Your task to perform on an android device: Empty the shopping cart on walmart. Search for "dell xps" on walmart, select the first entry, add it to the cart, then select checkout. Image 0: 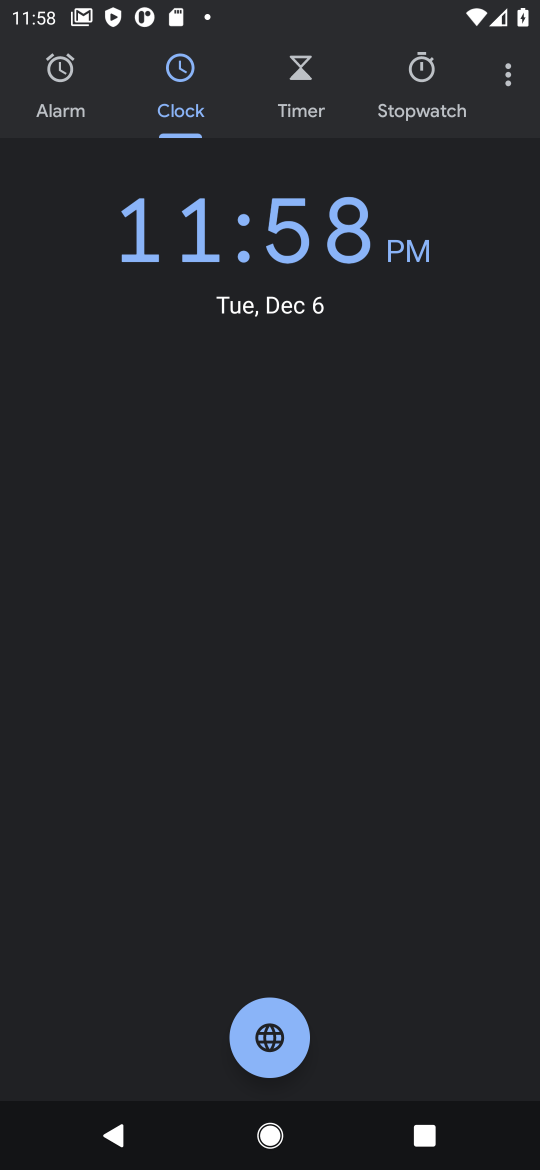
Step 0: press home button
Your task to perform on an android device: Empty the shopping cart on walmart. Search for "dell xps" on walmart, select the first entry, add it to the cart, then select checkout. Image 1: 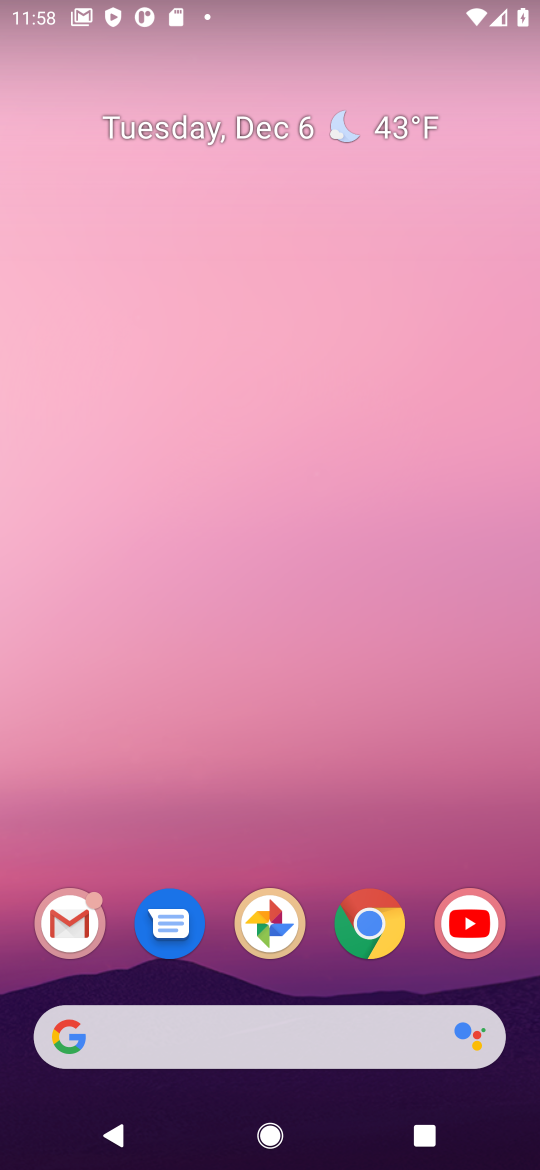
Step 1: click (362, 917)
Your task to perform on an android device: Empty the shopping cart on walmart. Search for "dell xps" on walmart, select the first entry, add it to the cart, then select checkout. Image 2: 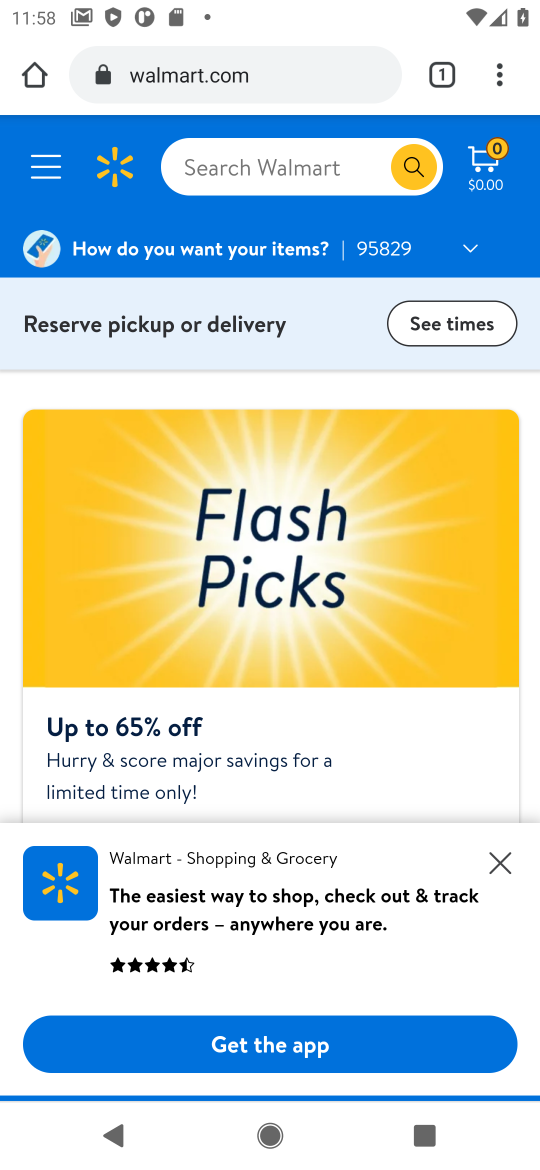
Step 2: click (406, 160)
Your task to perform on an android device: Empty the shopping cart on walmart. Search for "dell xps" on walmart, select the first entry, add it to the cart, then select checkout. Image 3: 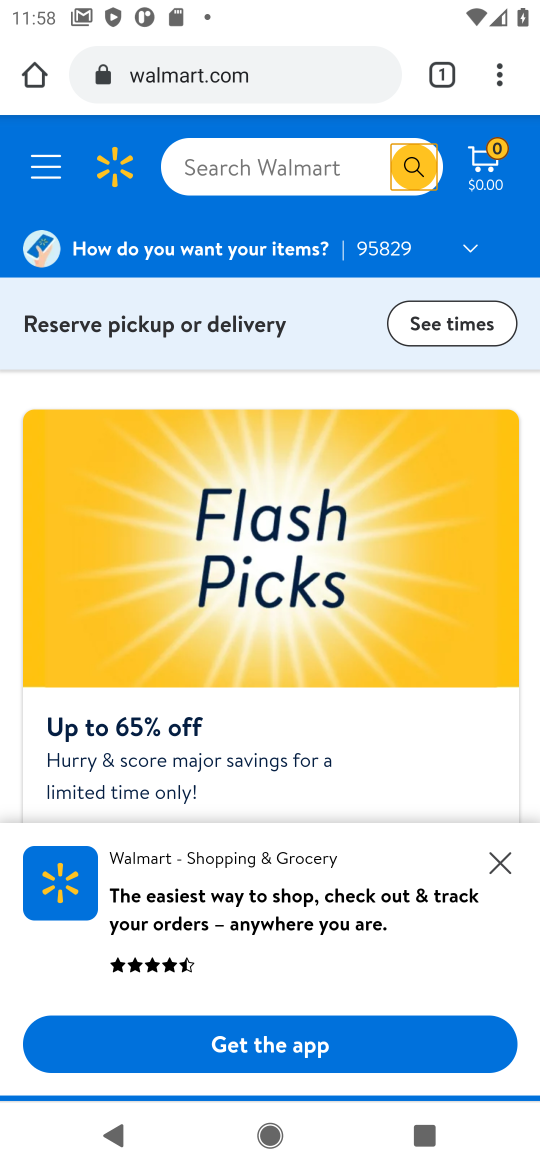
Step 3: click (301, 151)
Your task to perform on an android device: Empty the shopping cart on walmart. Search for "dell xps" on walmart, select the first entry, add it to the cart, then select checkout. Image 4: 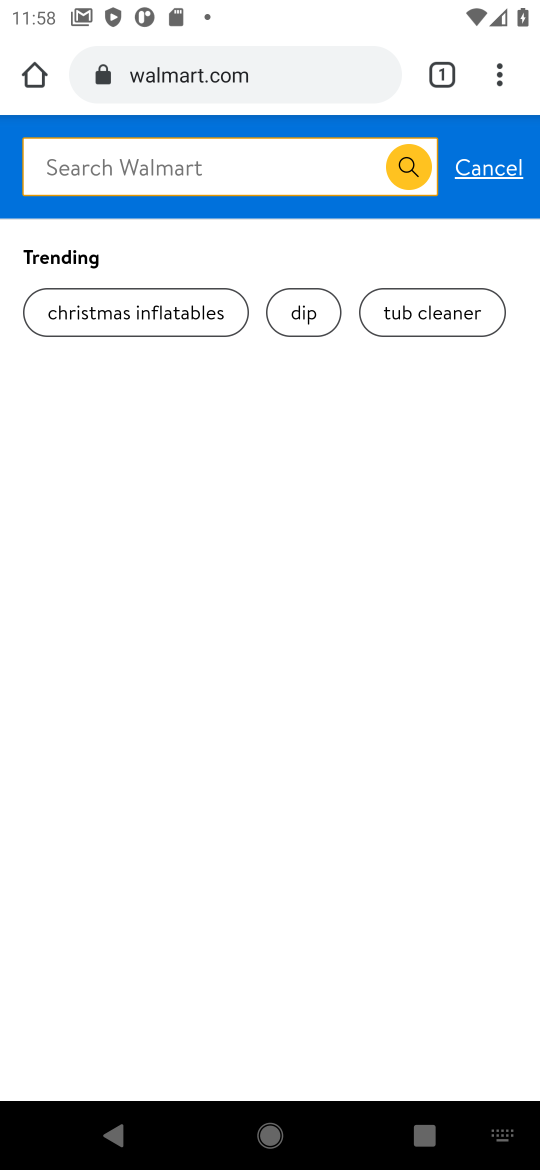
Step 4: type "dell xps"
Your task to perform on an android device: Empty the shopping cart on walmart. Search for "dell xps" on walmart, select the first entry, add it to the cart, then select checkout. Image 5: 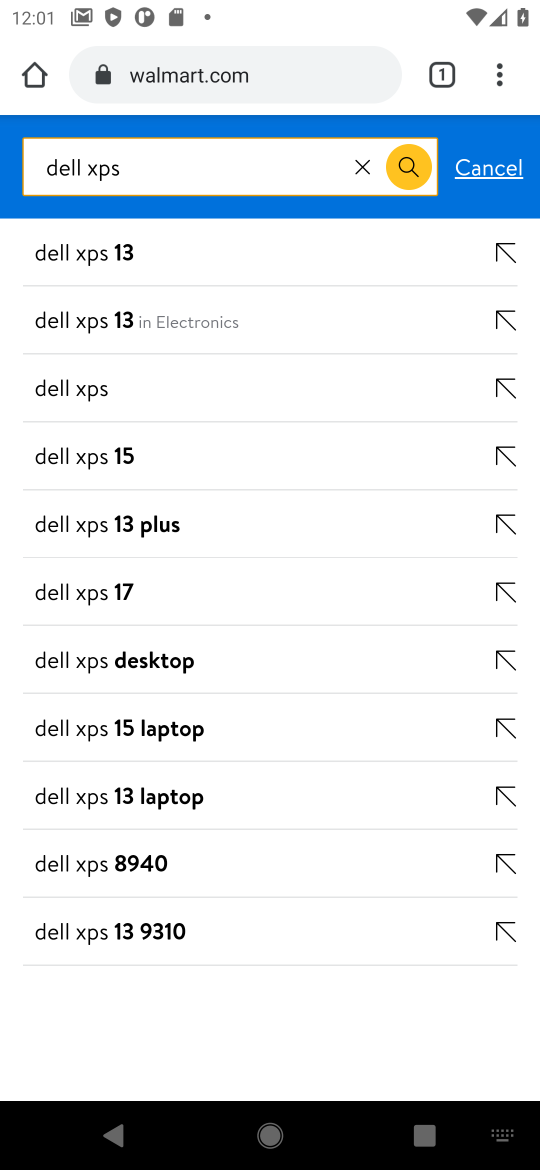
Step 5: click (117, 262)
Your task to perform on an android device: Empty the shopping cart on walmart. Search for "dell xps" on walmart, select the first entry, add it to the cart, then select checkout. Image 6: 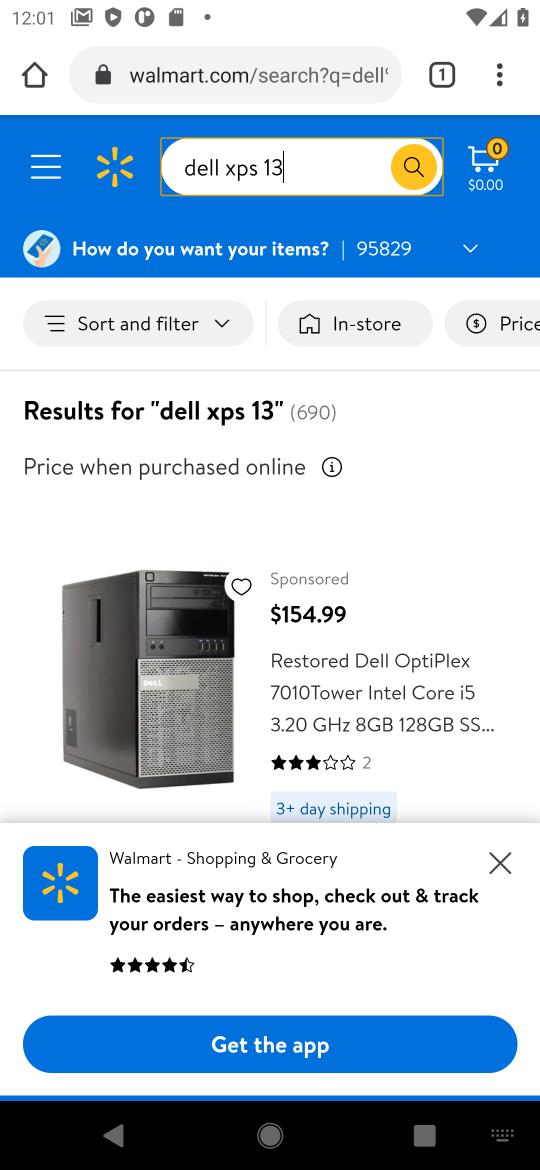
Step 6: click (150, 635)
Your task to perform on an android device: Empty the shopping cart on walmart. Search for "dell xps" on walmart, select the first entry, add it to the cart, then select checkout. Image 7: 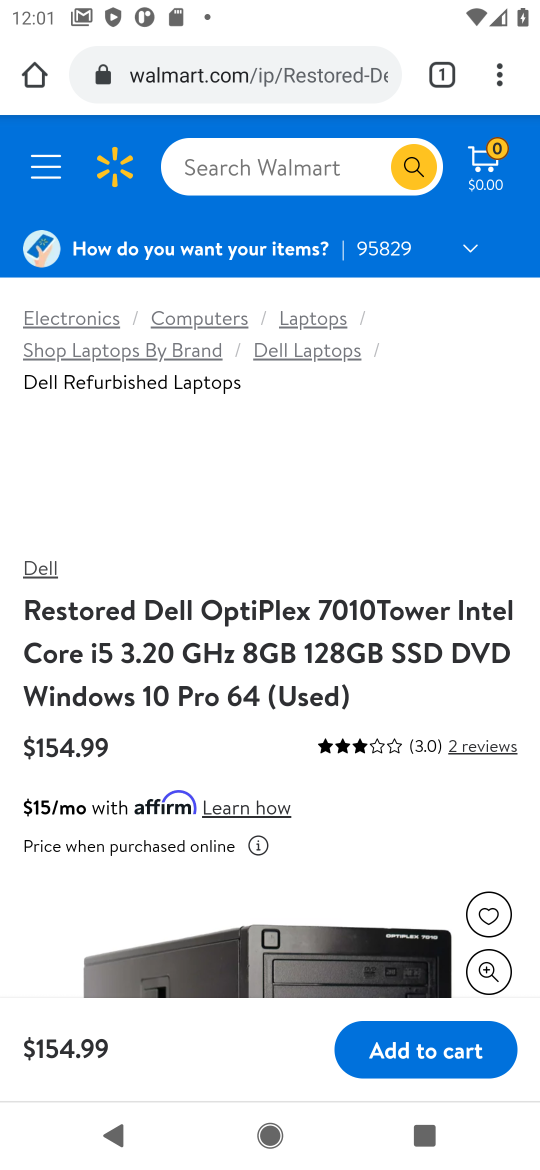
Step 7: click (422, 1043)
Your task to perform on an android device: Empty the shopping cart on walmart. Search for "dell xps" on walmart, select the first entry, add it to the cart, then select checkout. Image 8: 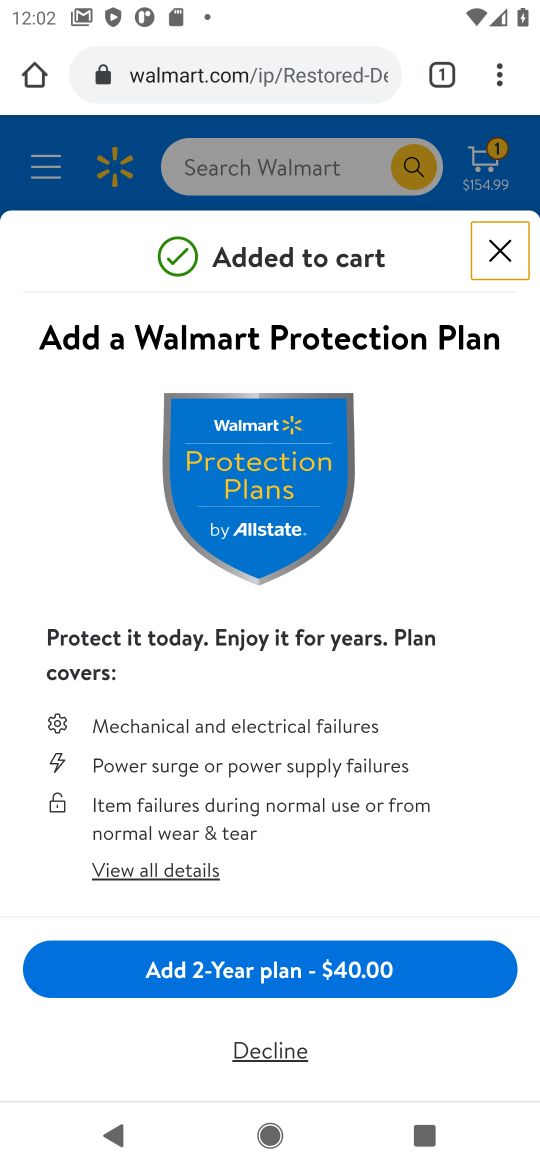
Step 8: click (504, 257)
Your task to perform on an android device: Empty the shopping cart on walmart. Search for "dell xps" on walmart, select the first entry, add it to the cart, then select checkout. Image 9: 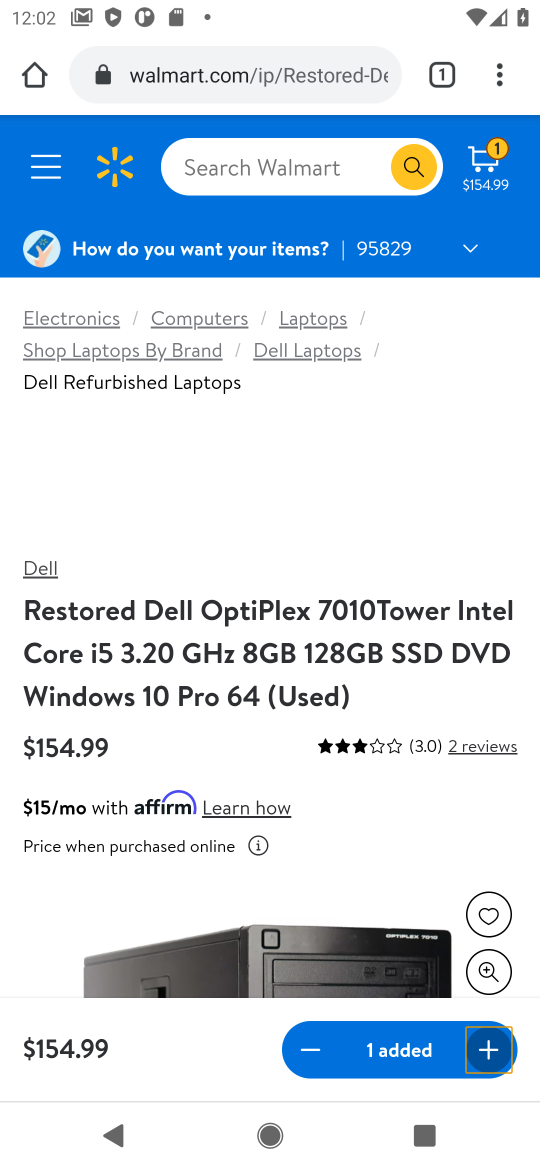
Step 9: click (485, 160)
Your task to perform on an android device: Empty the shopping cart on walmart. Search for "dell xps" on walmart, select the first entry, add it to the cart, then select checkout. Image 10: 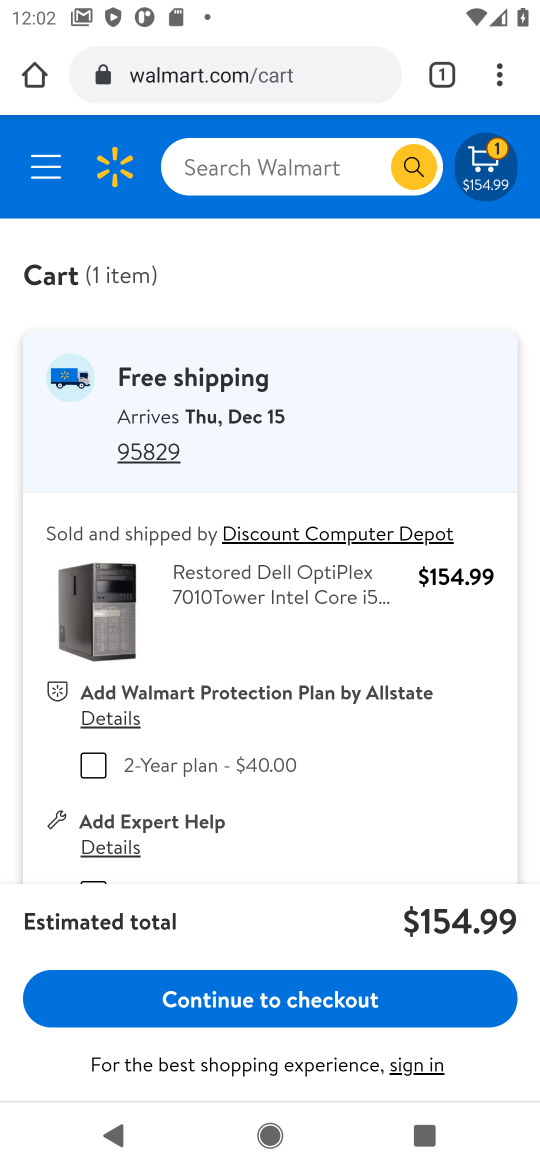
Step 10: click (311, 1006)
Your task to perform on an android device: Empty the shopping cart on walmart. Search for "dell xps" on walmart, select the first entry, add it to the cart, then select checkout. Image 11: 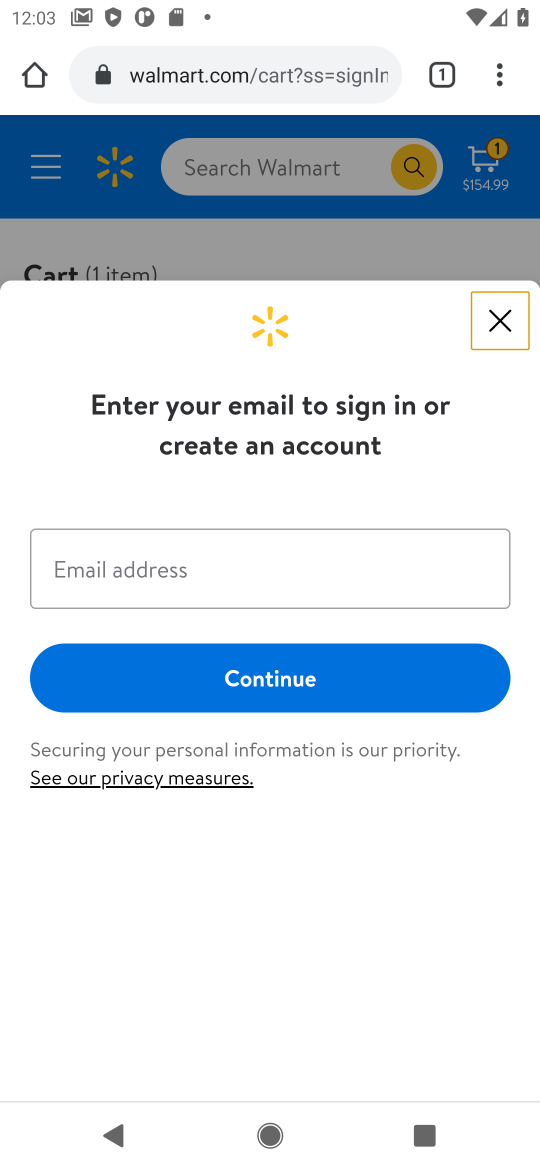
Step 11: click (486, 324)
Your task to perform on an android device: Empty the shopping cart on walmart. Search for "dell xps" on walmart, select the first entry, add it to the cart, then select checkout. Image 12: 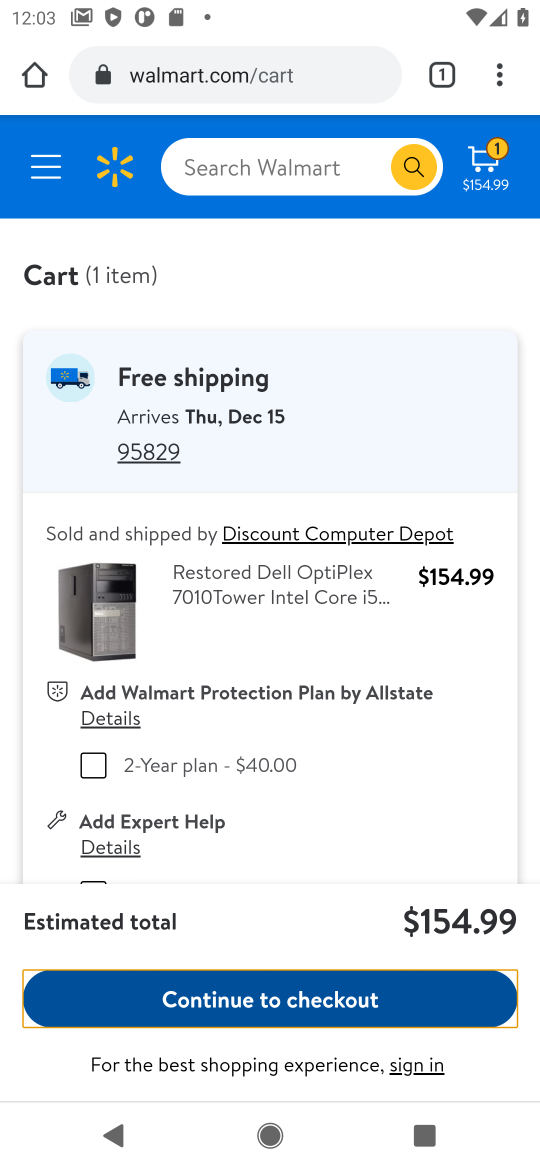
Step 12: task complete